Your task to perform on an android device: open chrome privacy settings Image 0: 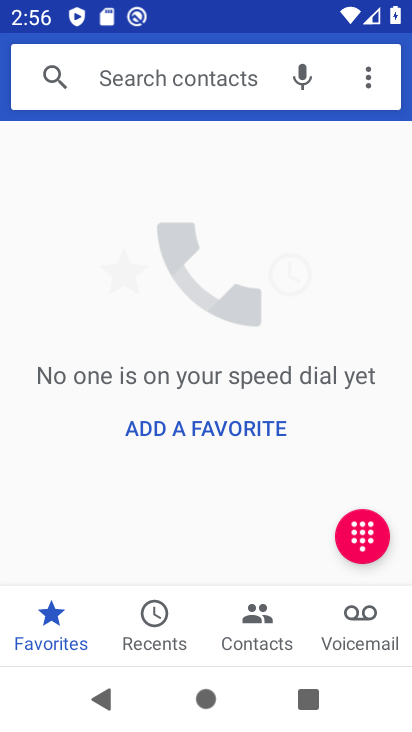
Step 0: press back button
Your task to perform on an android device: open chrome privacy settings Image 1: 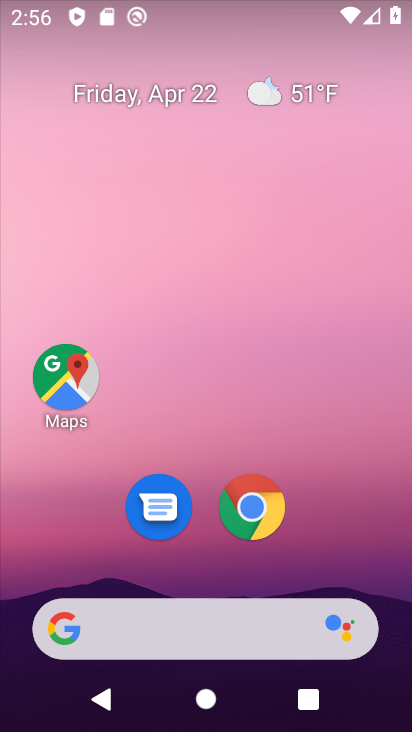
Step 1: click (257, 504)
Your task to perform on an android device: open chrome privacy settings Image 2: 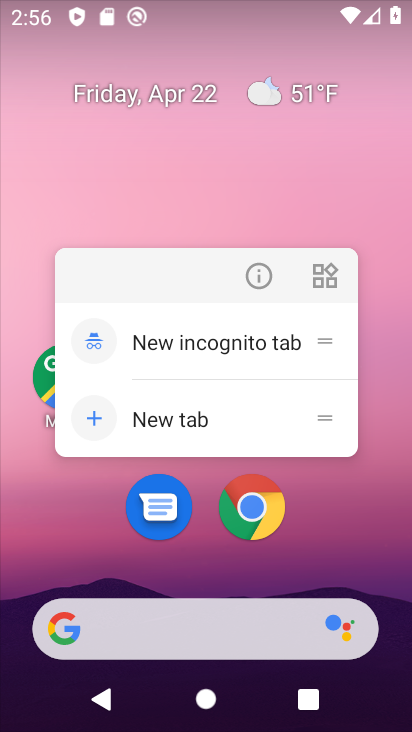
Step 2: click (256, 504)
Your task to perform on an android device: open chrome privacy settings Image 3: 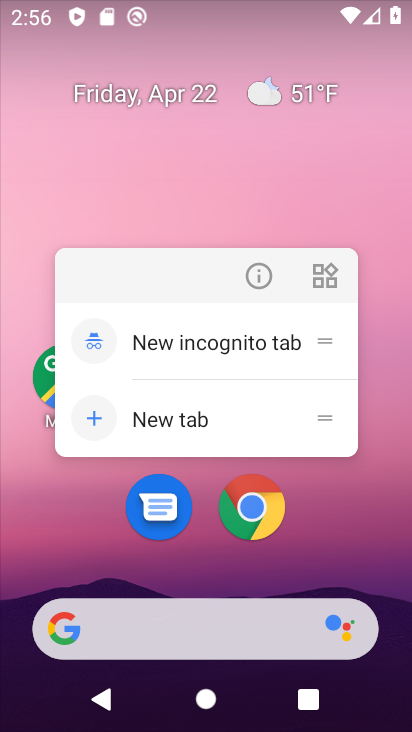
Step 3: click (257, 512)
Your task to perform on an android device: open chrome privacy settings Image 4: 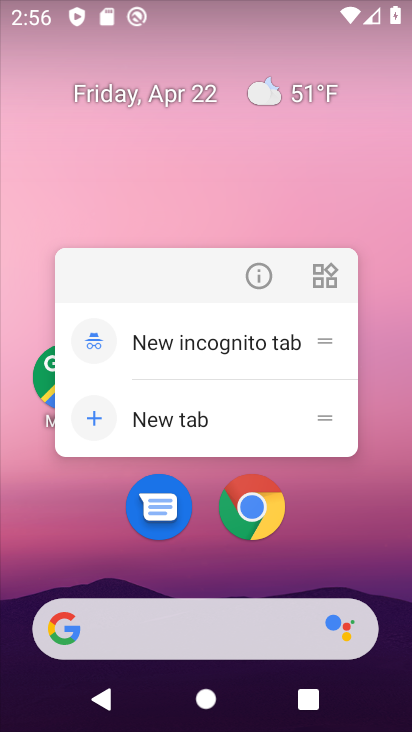
Step 4: click (257, 510)
Your task to perform on an android device: open chrome privacy settings Image 5: 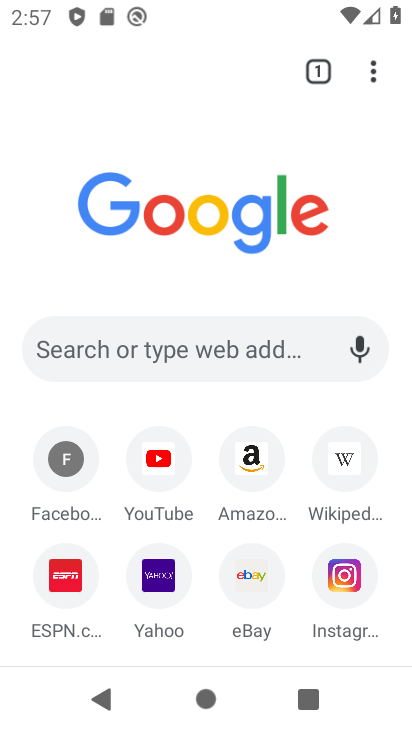
Step 5: click (374, 71)
Your task to perform on an android device: open chrome privacy settings Image 6: 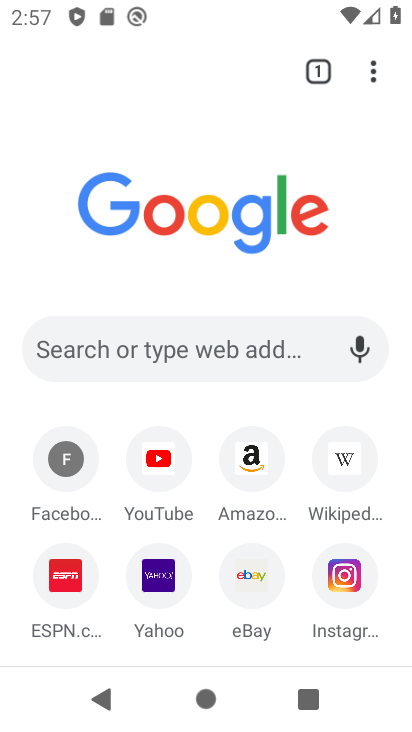
Step 6: drag from (370, 66) to (137, 509)
Your task to perform on an android device: open chrome privacy settings Image 7: 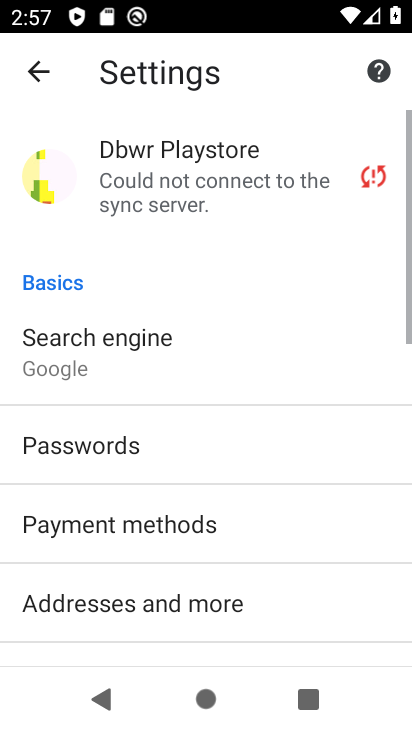
Step 7: drag from (153, 559) to (288, 41)
Your task to perform on an android device: open chrome privacy settings Image 8: 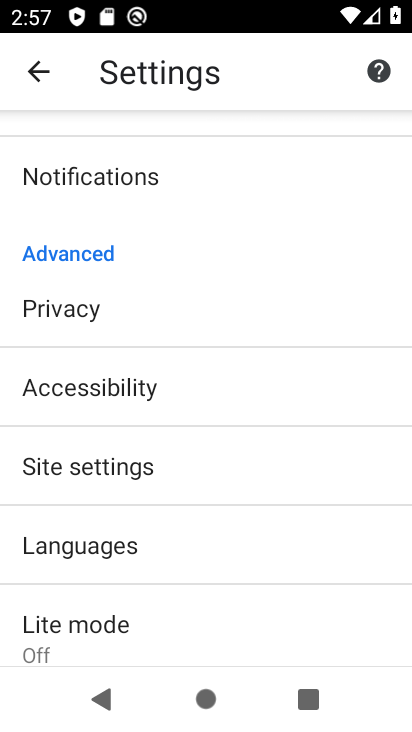
Step 8: click (73, 320)
Your task to perform on an android device: open chrome privacy settings Image 9: 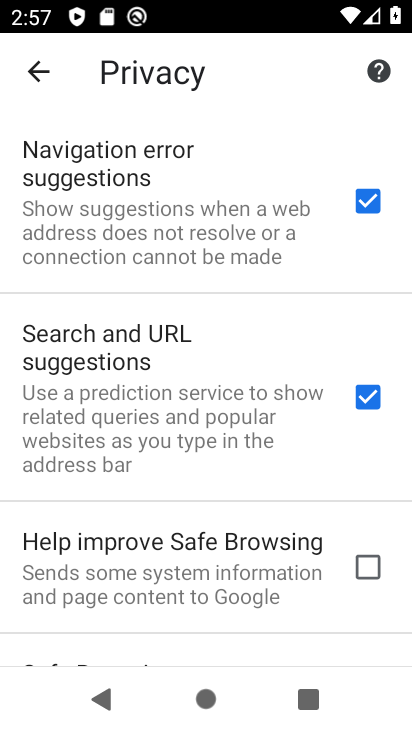
Step 9: task complete